Your task to perform on an android device: open app "Airtel Thanks" (install if not already installed) and go to login screen Image 0: 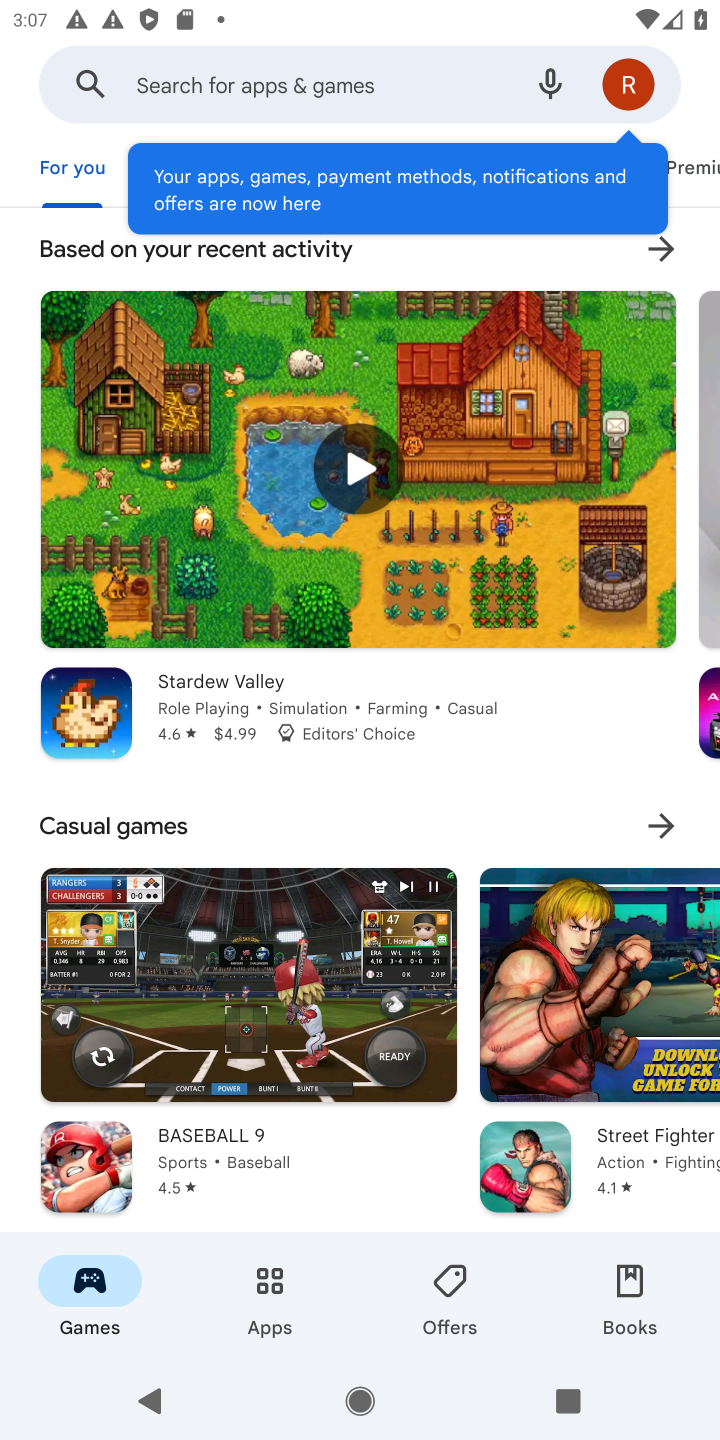
Step 0: press home button
Your task to perform on an android device: open app "Airtel Thanks" (install if not already installed) and go to login screen Image 1: 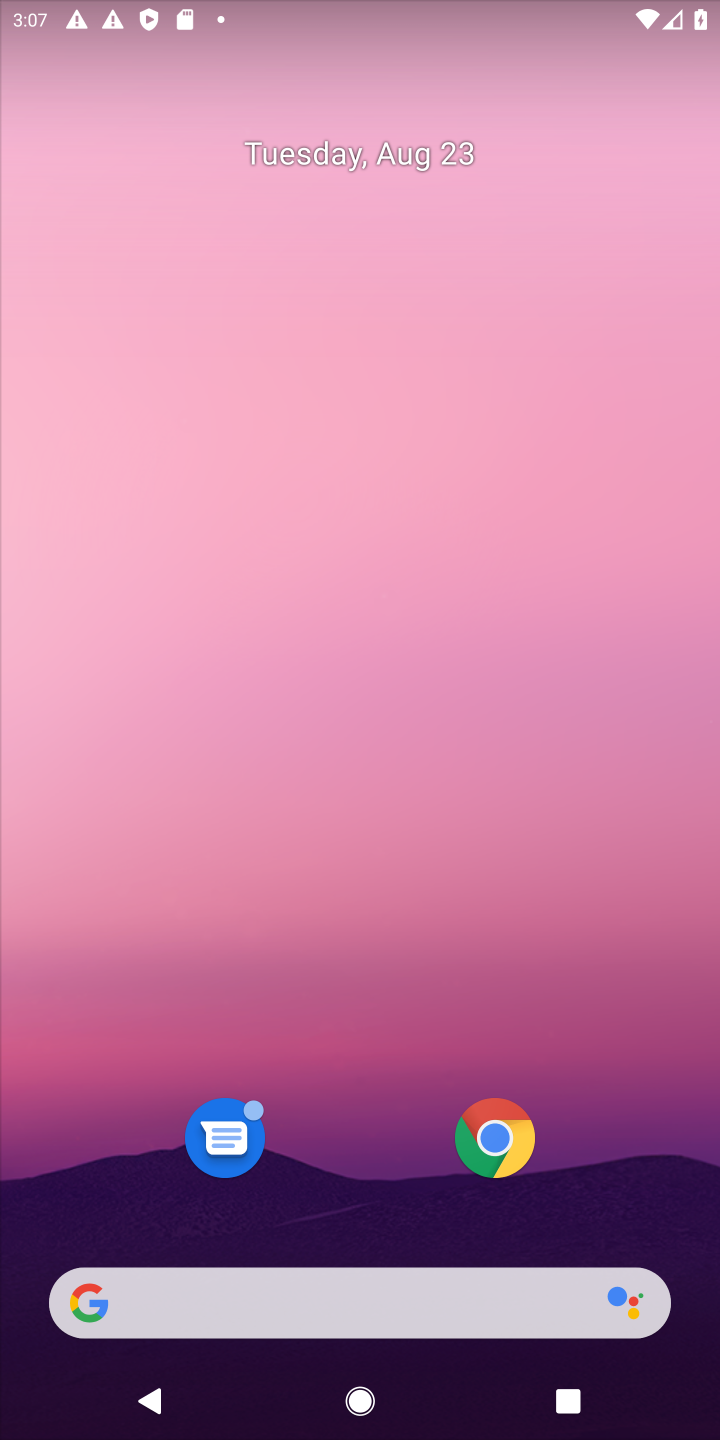
Step 1: drag from (321, 1320) to (405, 125)
Your task to perform on an android device: open app "Airtel Thanks" (install if not already installed) and go to login screen Image 2: 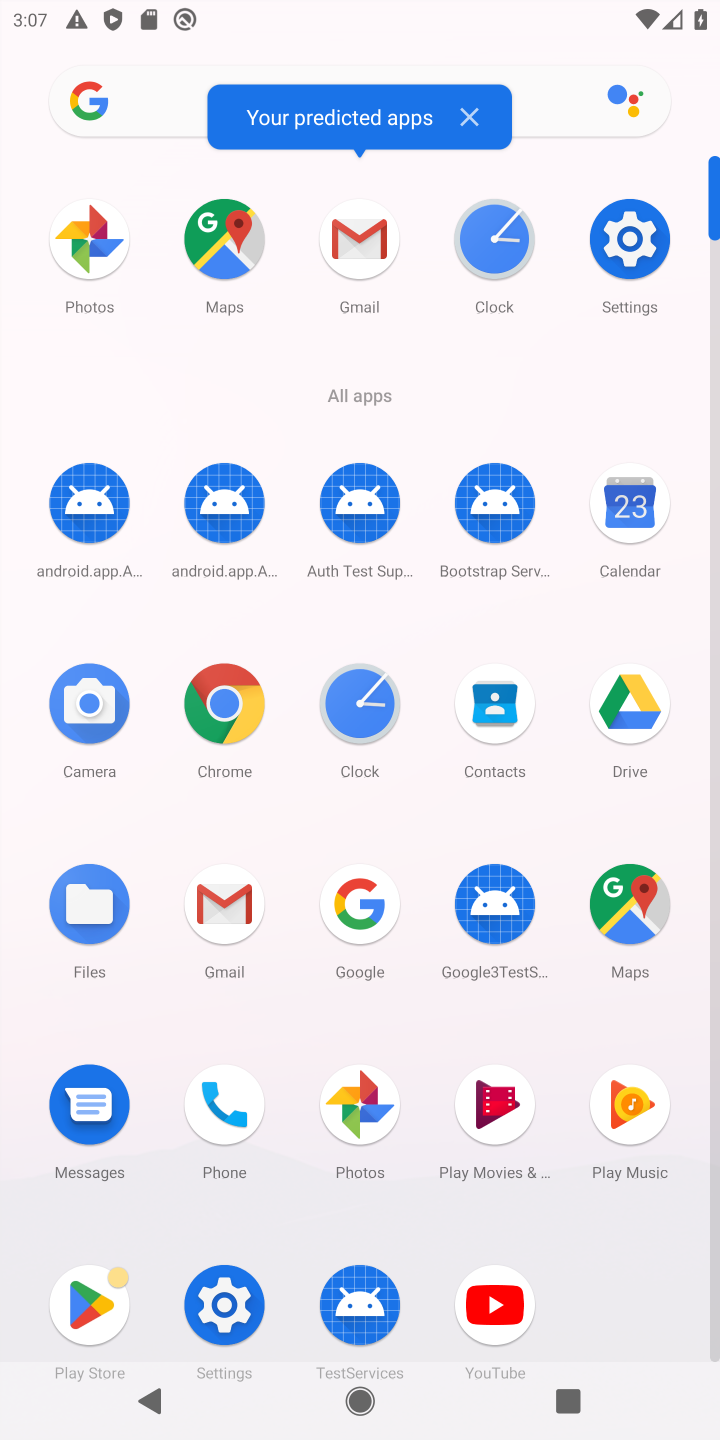
Step 2: click (92, 1311)
Your task to perform on an android device: open app "Airtel Thanks" (install if not already installed) and go to login screen Image 3: 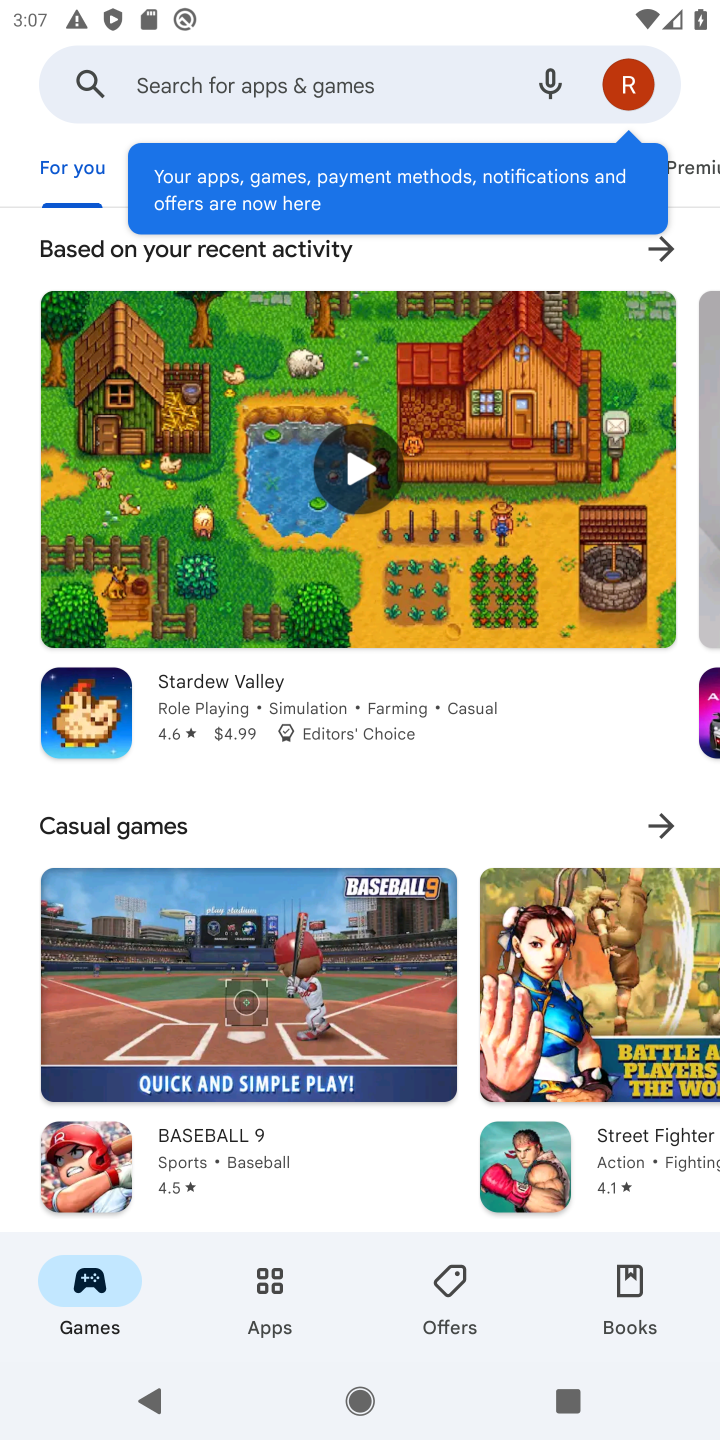
Step 3: click (256, 1283)
Your task to perform on an android device: open app "Airtel Thanks" (install if not already installed) and go to login screen Image 4: 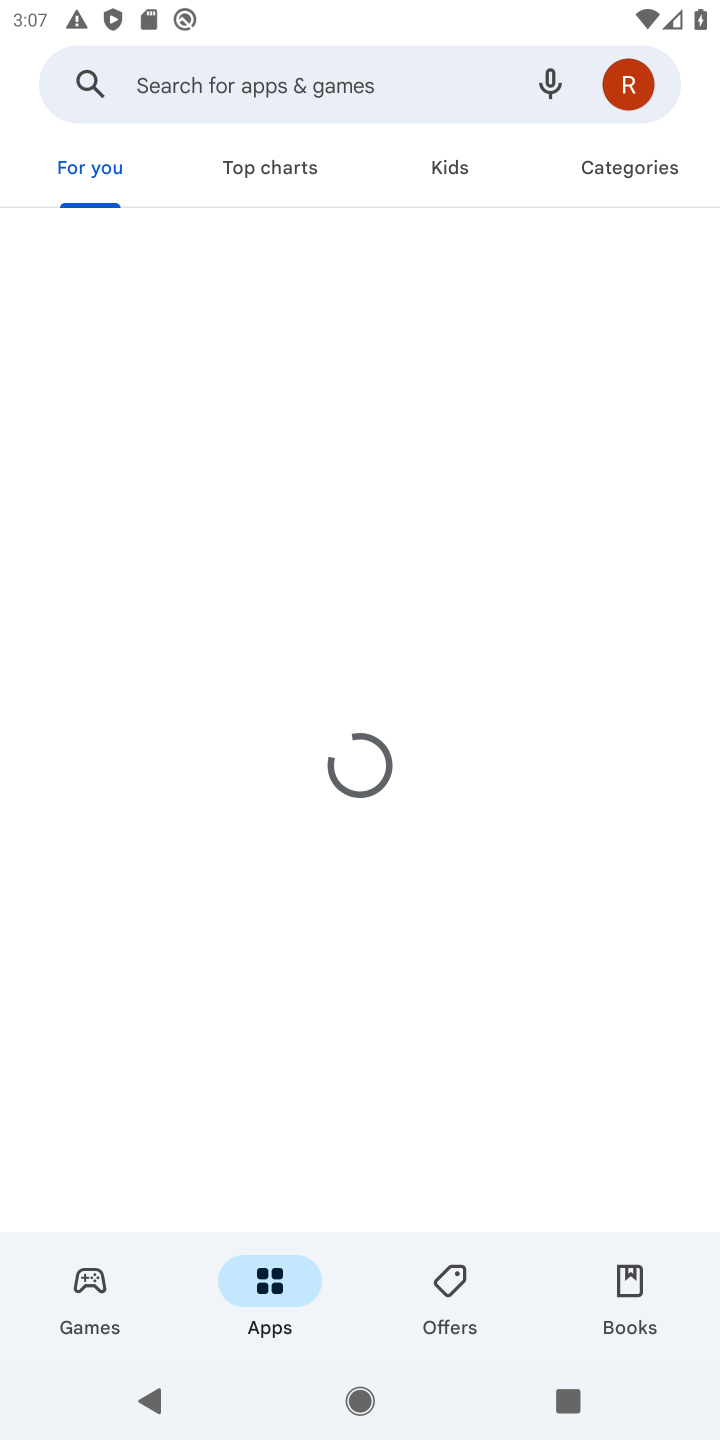
Step 4: click (323, 80)
Your task to perform on an android device: open app "Airtel Thanks" (install if not already installed) and go to login screen Image 5: 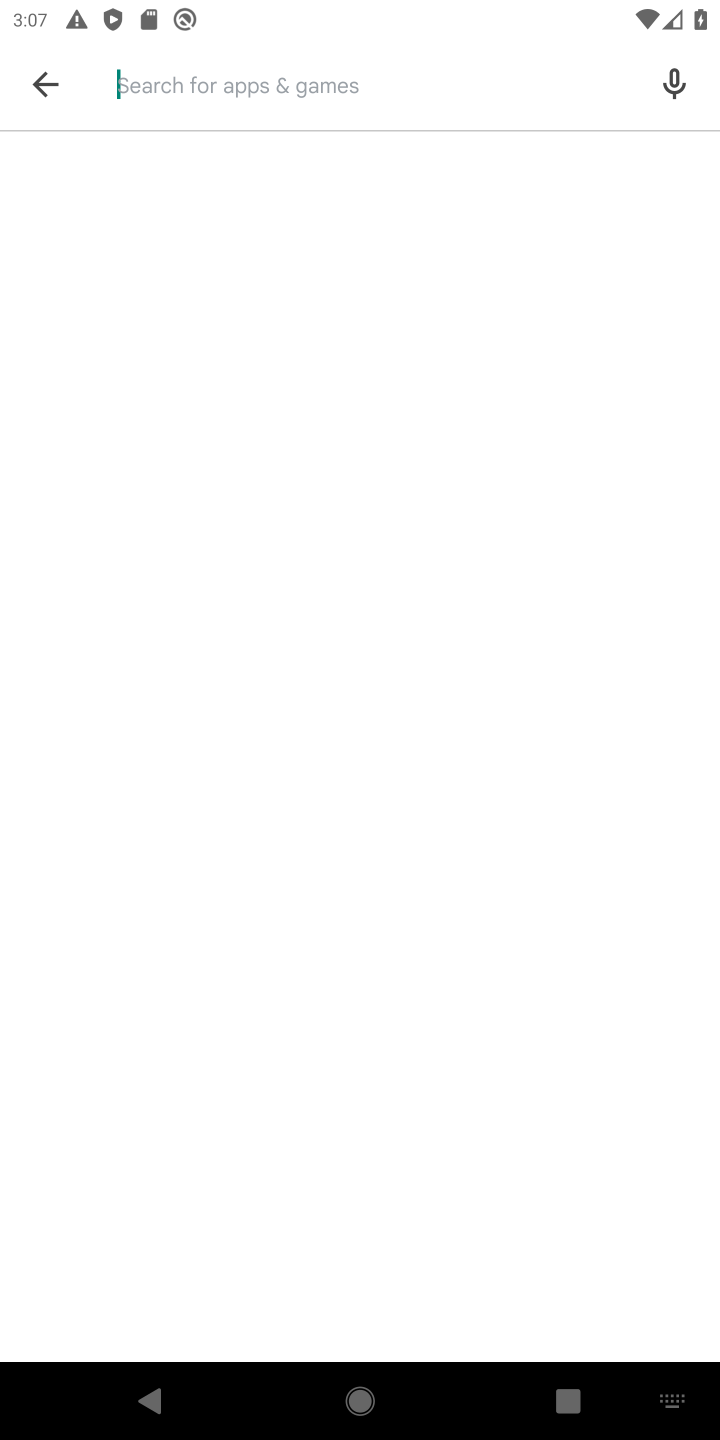
Step 5: type "Airtel Thanks"
Your task to perform on an android device: open app "Airtel Thanks" (install if not already installed) and go to login screen Image 6: 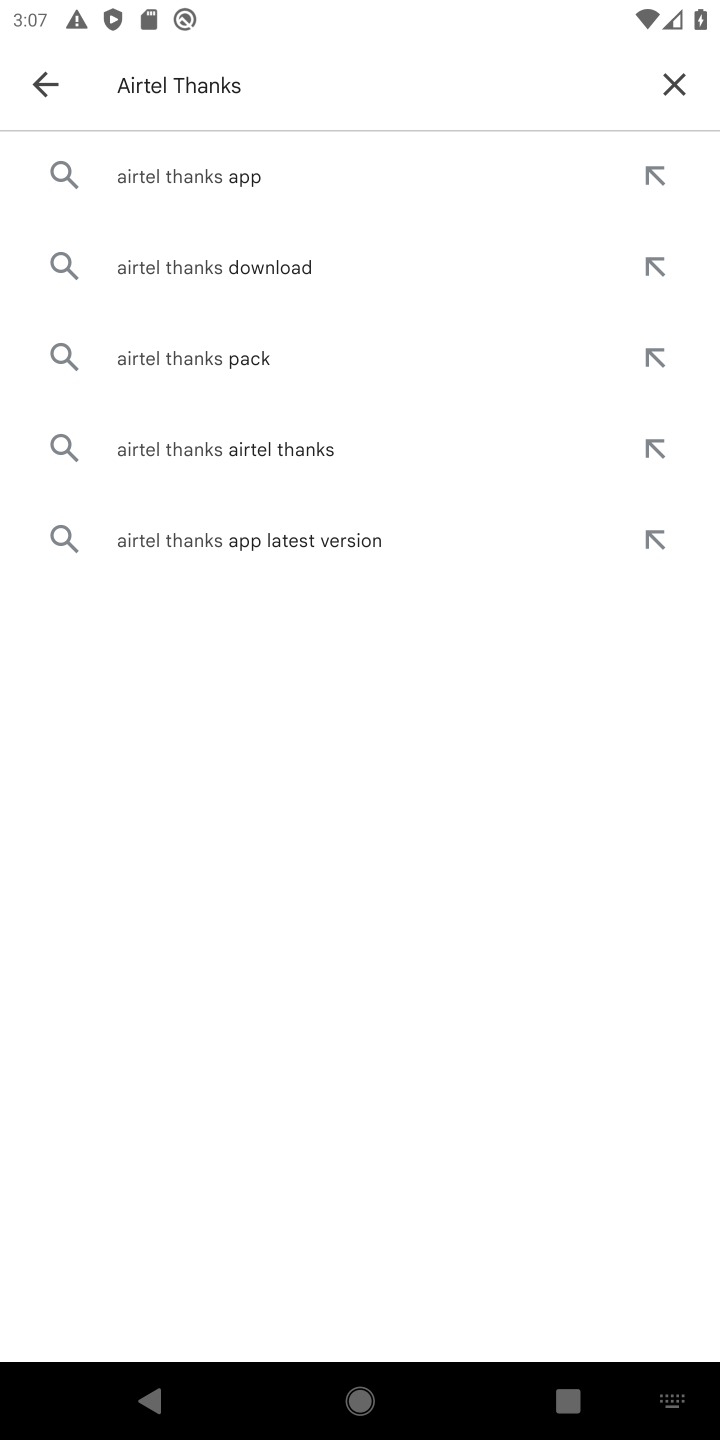
Step 6: click (225, 167)
Your task to perform on an android device: open app "Airtel Thanks" (install if not already installed) and go to login screen Image 7: 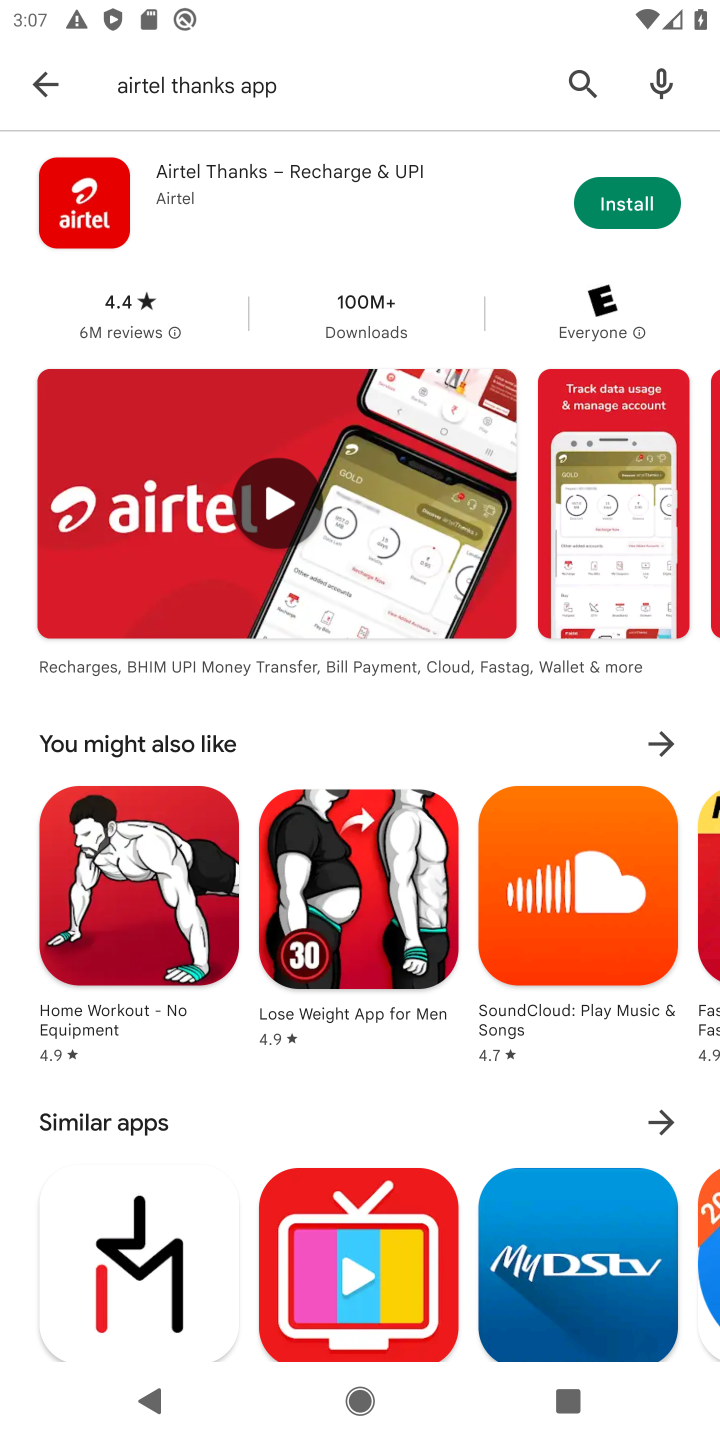
Step 7: click (621, 212)
Your task to perform on an android device: open app "Airtel Thanks" (install if not already installed) and go to login screen Image 8: 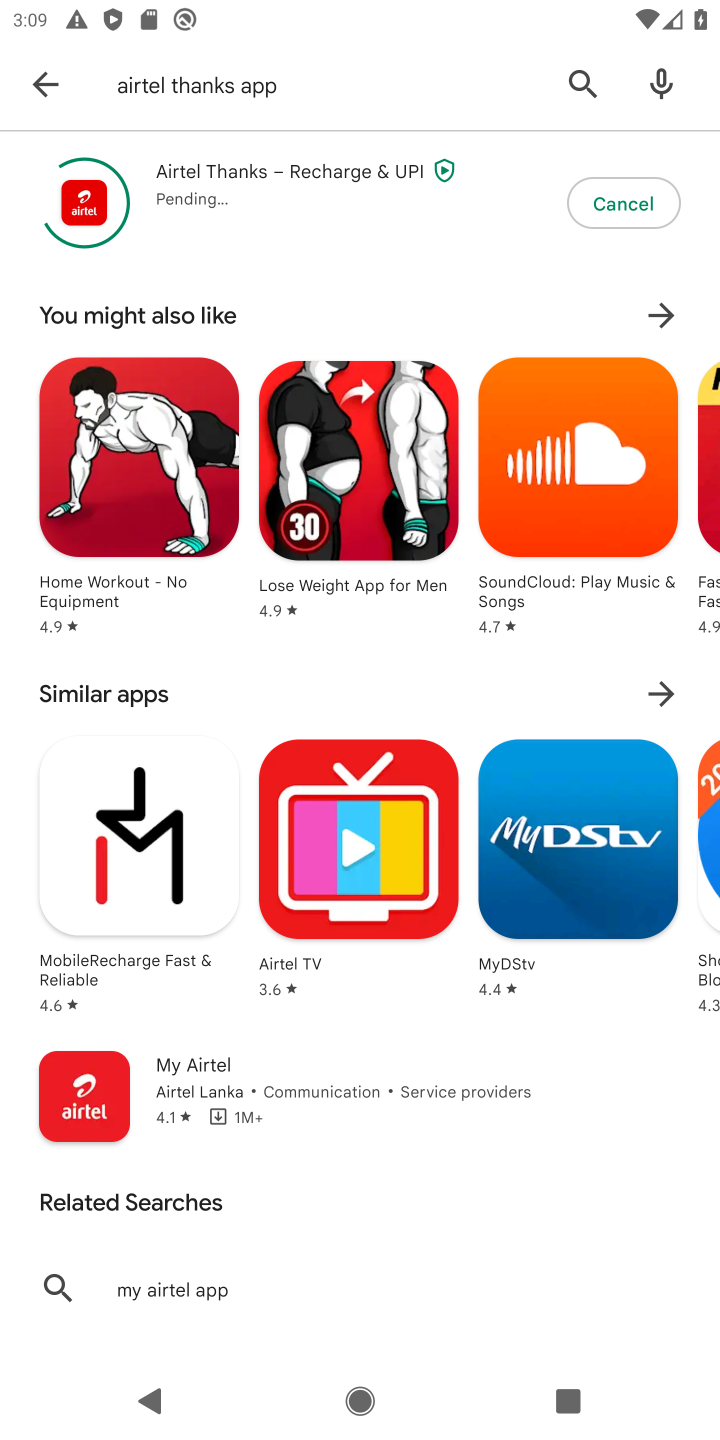
Step 8: task complete